Your task to perform on an android device: turn on priority inbox in the gmail app Image 0: 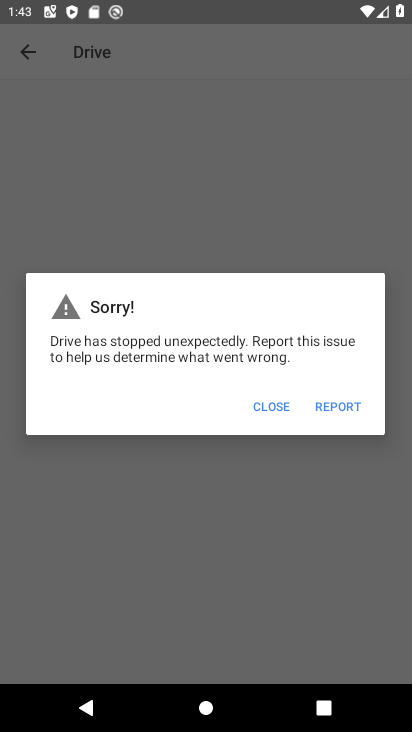
Step 0: press home button
Your task to perform on an android device: turn on priority inbox in the gmail app Image 1: 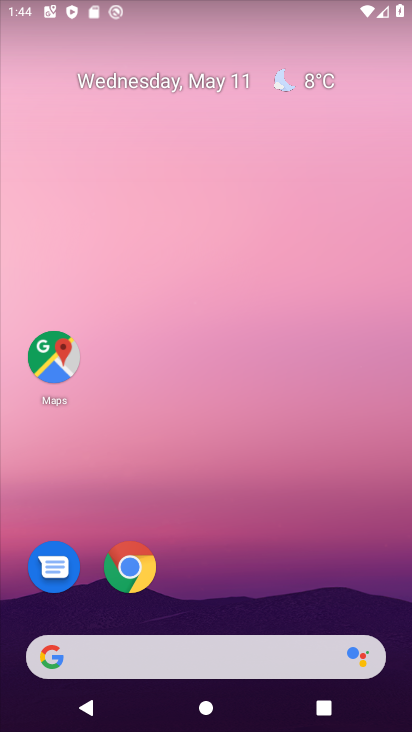
Step 1: drag from (359, 540) to (276, 183)
Your task to perform on an android device: turn on priority inbox in the gmail app Image 2: 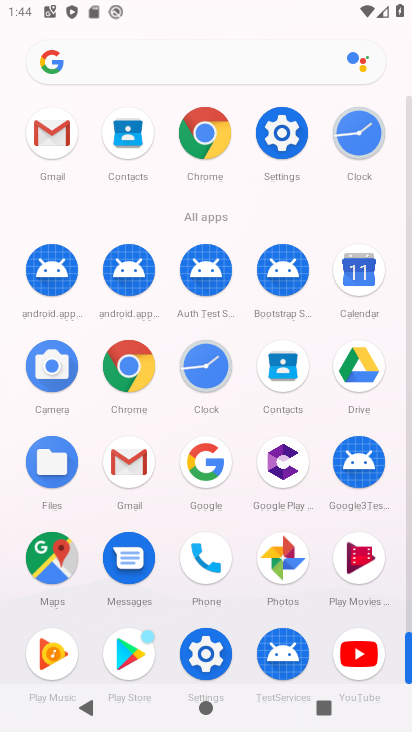
Step 2: click (141, 458)
Your task to perform on an android device: turn on priority inbox in the gmail app Image 3: 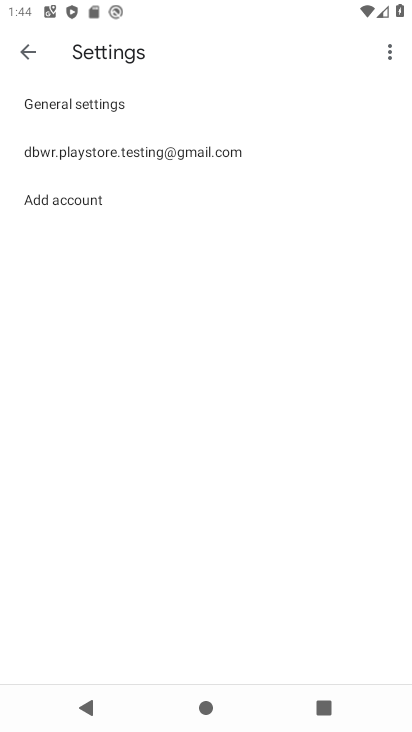
Step 3: click (119, 143)
Your task to perform on an android device: turn on priority inbox in the gmail app Image 4: 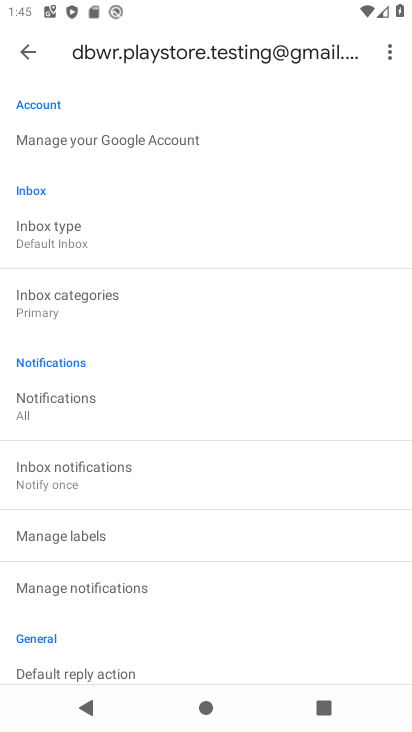
Step 4: click (157, 241)
Your task to perform on an android device: turn on priority inbox in the gmail app Image 5: 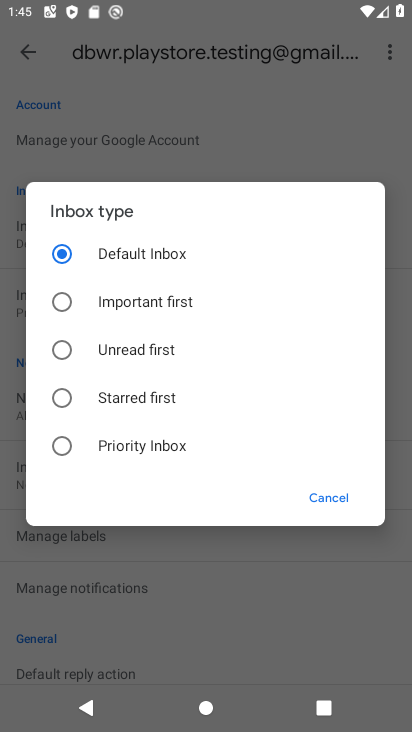
Step 5: click (159, 442)
Your task to perform on an android device: turn on priority inbox in the gmail app Image 6: 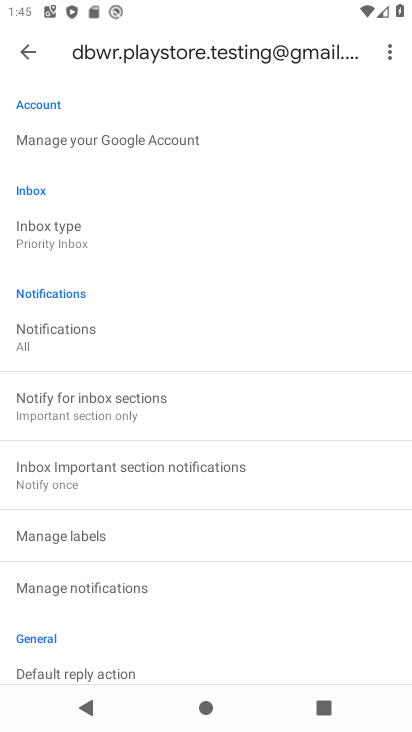
Step 6: task complete